Your task to perform on an android device: Search for vegetarian restaurants on Maps Image 0: 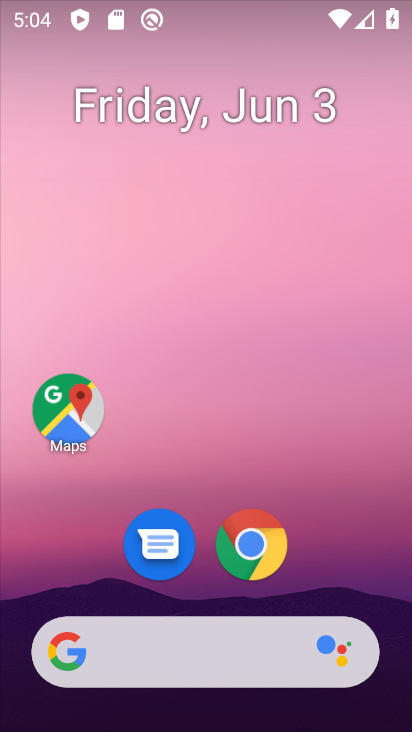
Step 0: press home button
Your task to perform on an android device: Search for vegetarian restaurants on Maps Image 1: 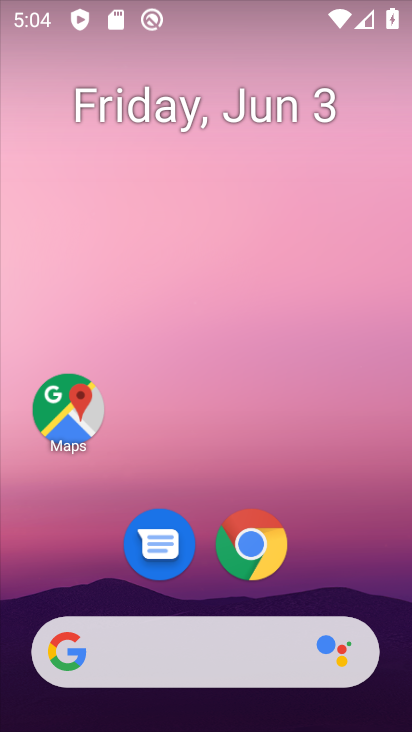
Step 1: drag from (335, 583) to (314, 127)
Your task to perform on an android device: Search for vegetarian restaurants on Maps Image 2: 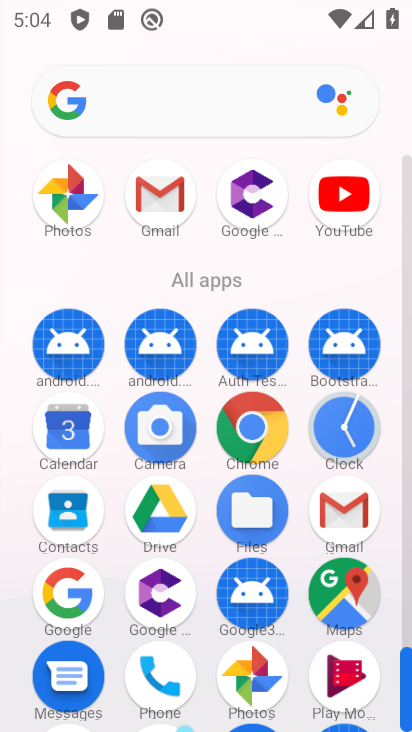
Step 2: click (352, 594)
Your task to perform on an android device: Search for vegetarian restaurants on Maps Image 3: 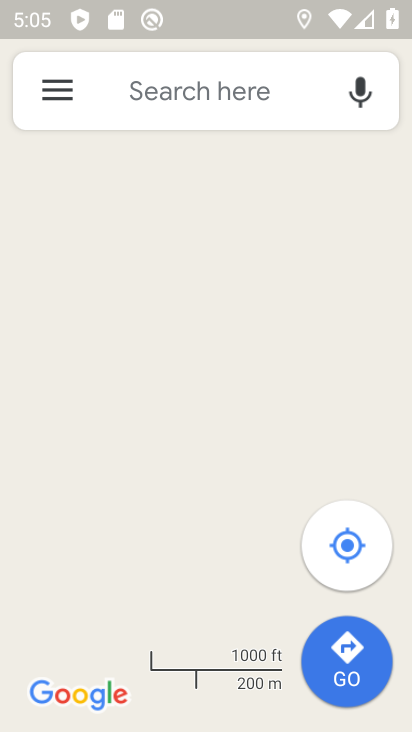
Step 3: click (142, 95)
Your task to perform on an android device: Search for vegetarian restaurants on Maps Image 4: 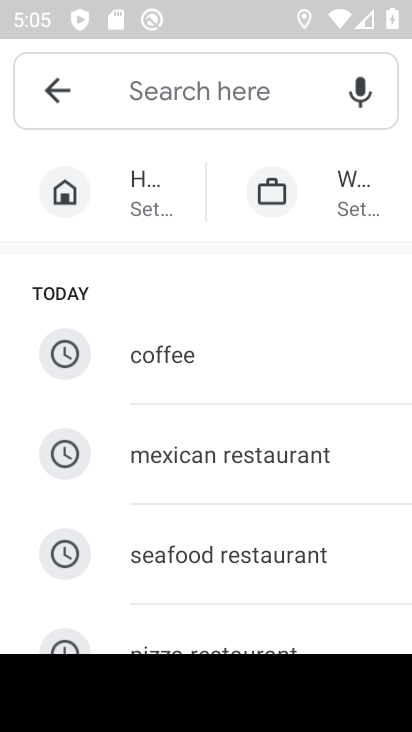
Step 4: type "vegetarian restaurants"
Your task to perform on an android device: Search for vegetarian restaurants on Maps Image 5: 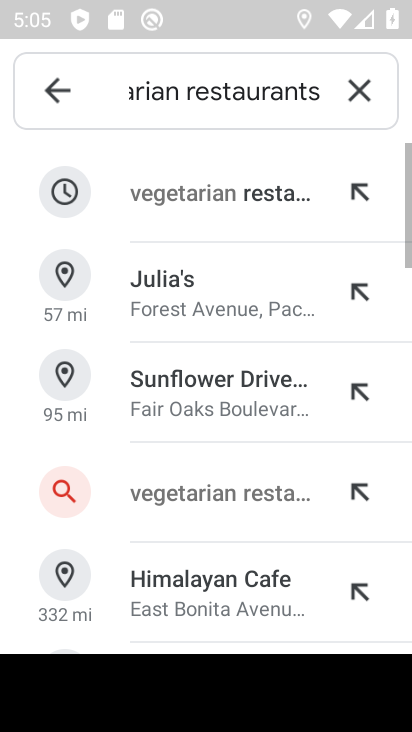
Step 5: click (197, 197)
Your task to perform on an android device: Search for vegetarian restaurants on Maps Image 6: 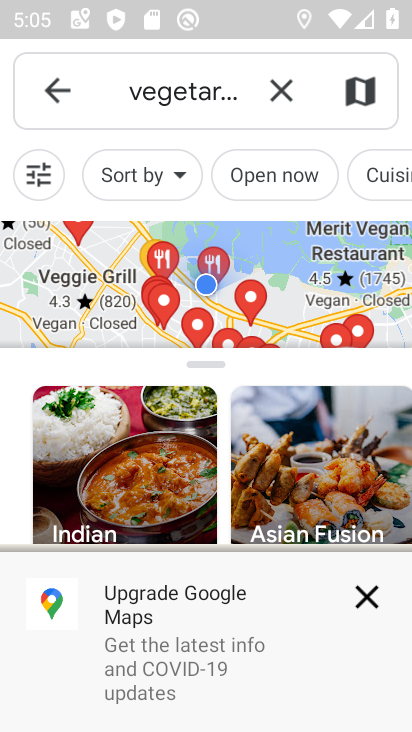
Step 6: task complete